Your task to perform on an android device: change alarm snooze length Image 0: 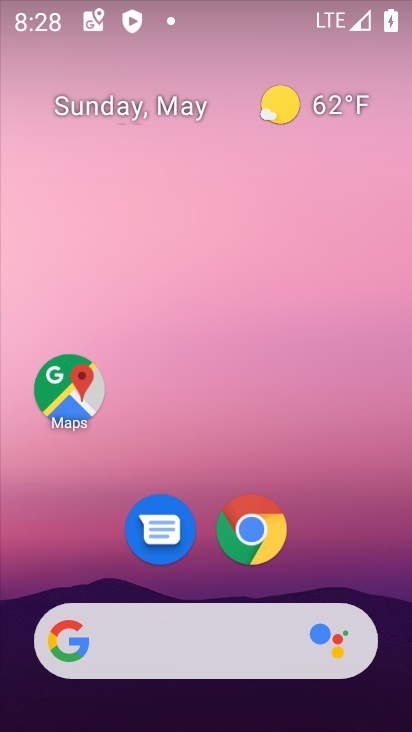
Step 0: drag from (193, 575) to (263, 61)
Your task to perform on an android device: change alarm snooze length Image 1: 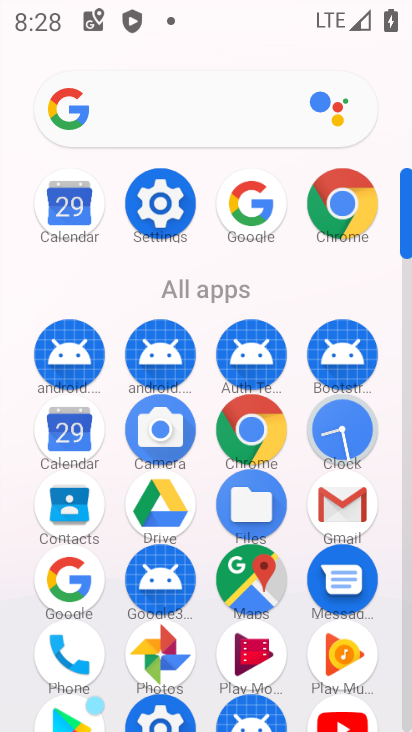
Step 1: click (345, 430)
Your task to perform on an android device: change alarm snooze length Image 2: 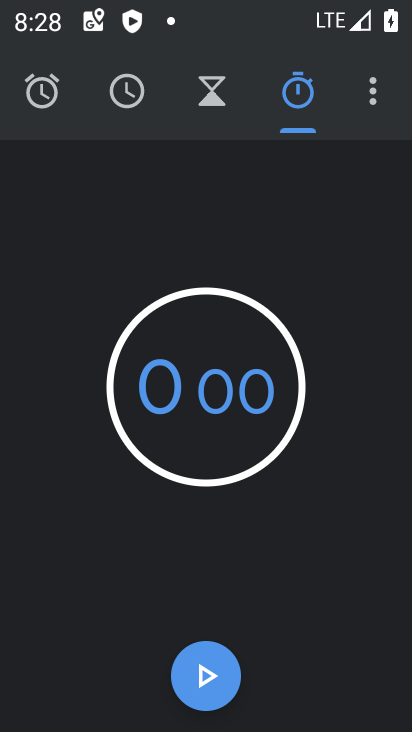
Step 2: click (369, 84)
Your task to perform on an android device: change alarm snooze length Image 3: 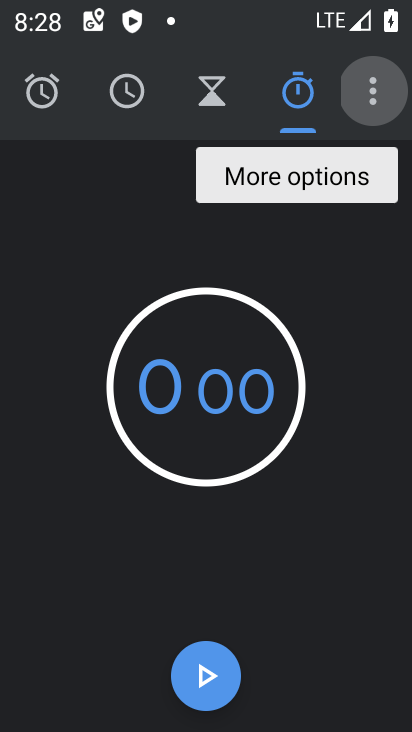
Step 3: click (369, 94)
Your task to perform on an android device: change alarm snooze length Image 4: 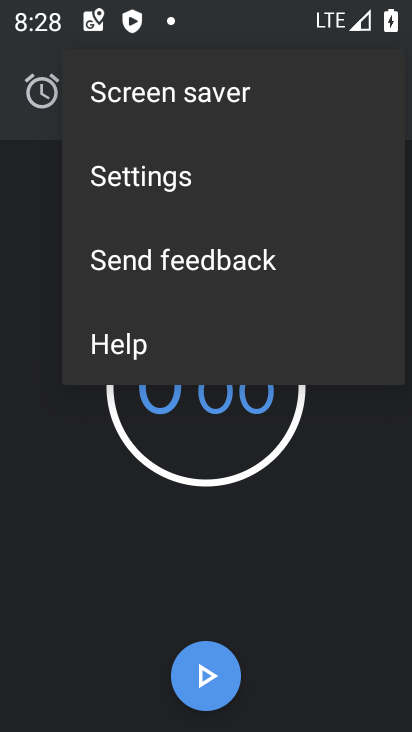
Step 4: click (241, 184)
Your task to perform on an android device: change alarm snooze length Image 5: 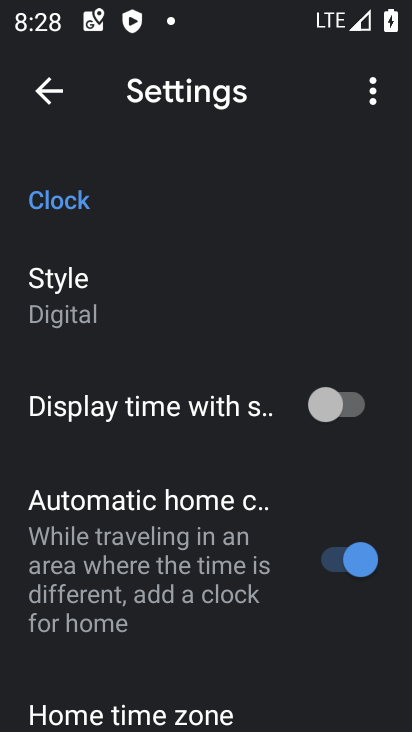
Step 5: drag from (159, 685) to (266, 109)
Your task to perform on an android device: change alarm snooze length Image 6: 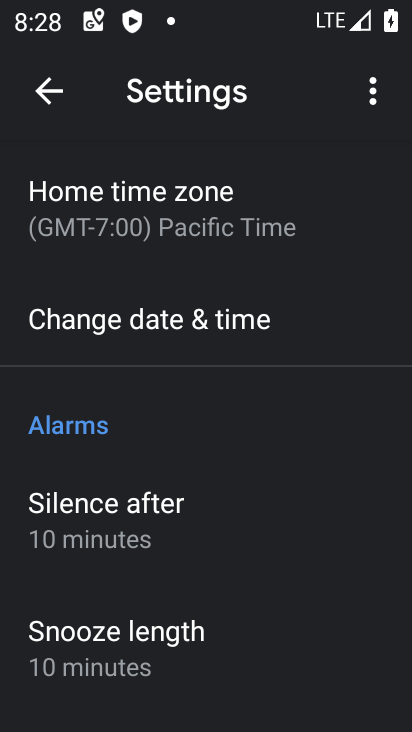
Step 6: click (165, 636)
Your task to perform on an android device: change alarm snooze length Image 7: 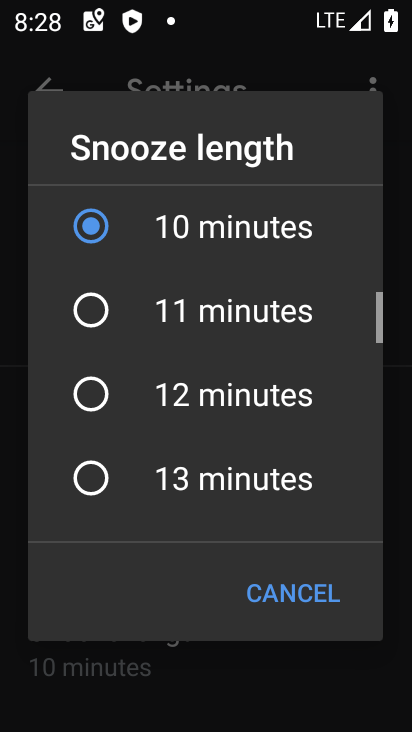
Step 7: click (94, 299)
Your task to perform on an android device: change alarm snooze length Image 8: 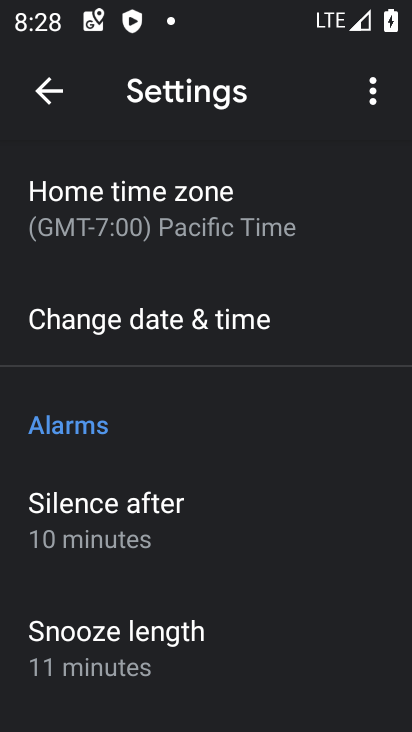
Step 8: task complete